Your task to perform on an android device: toggle notifications settings in the gmail app Image 0: 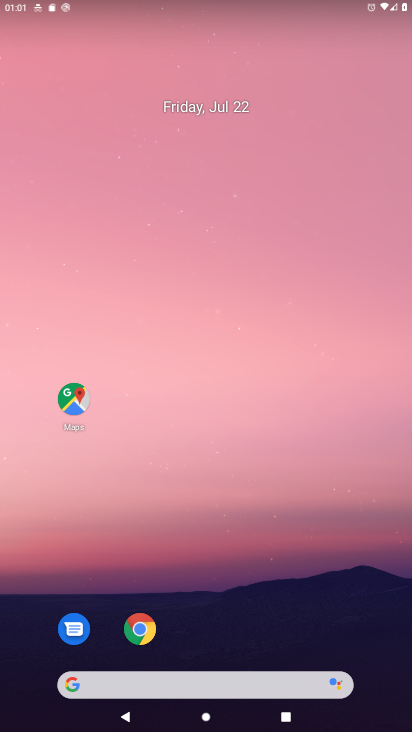
Step 0: drag from (202, 518) to (202, 184)
Your task to perform on an android device: toggle notifications settings in the gmail app Image 1: 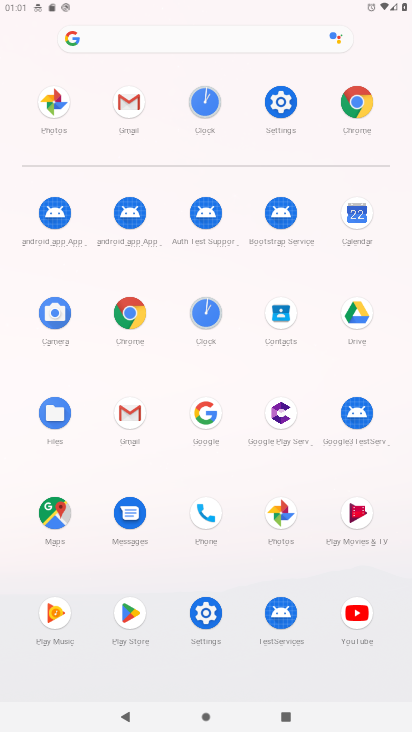
Step 1: click (116, 97)
Your task to perform on an android device: toggle notifications settings in the gmail app Image 2: 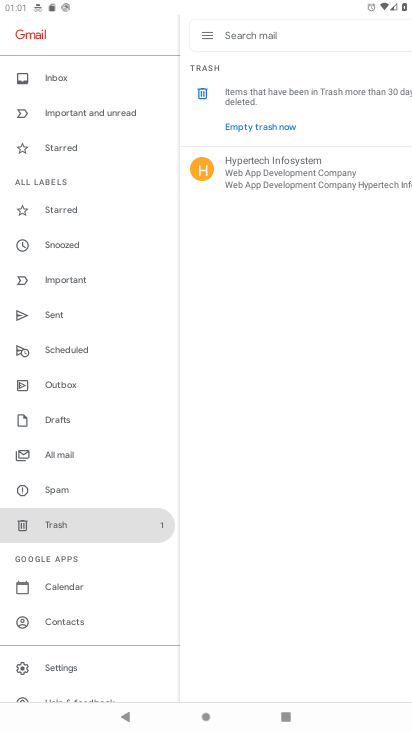
Step 2: click (91, 674)
Your task to perform on an android device: toggle notifications settings in the gmail app Image 3: 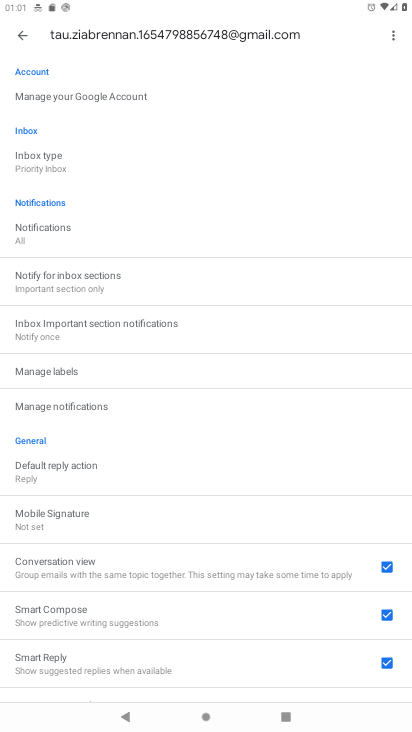
Step 3: click (70, 231)
Your task to perform on an android device: toggle notifications settings in the gmail app Image 4: 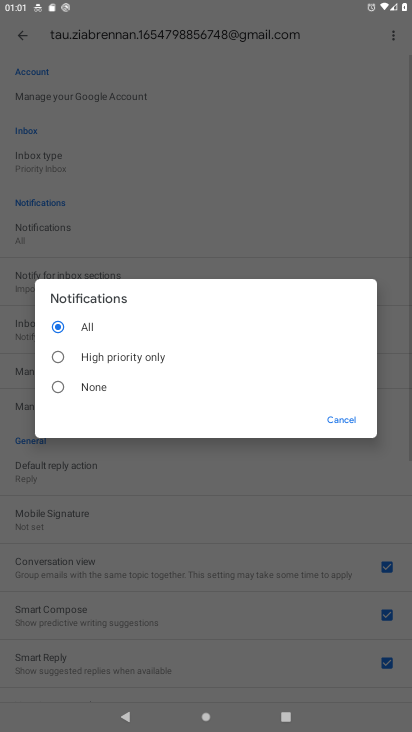
Step 4: click (75, 382)
Your task to perform on an android device: toggle notifications settings in the gmail app Image 5: 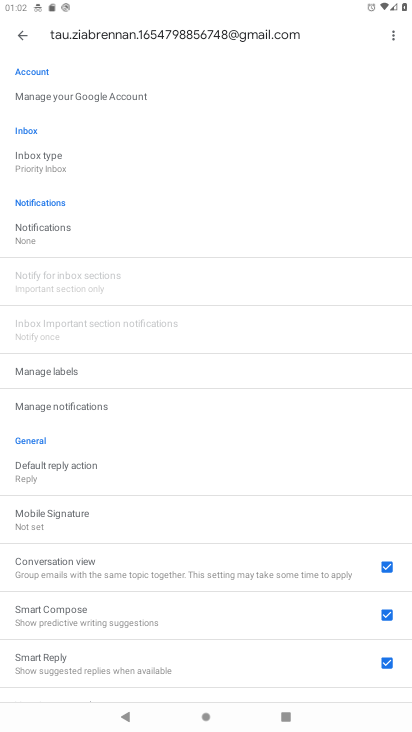
Step 5: task complete